Your task to perform on an android device: Open notification settings Image 0: 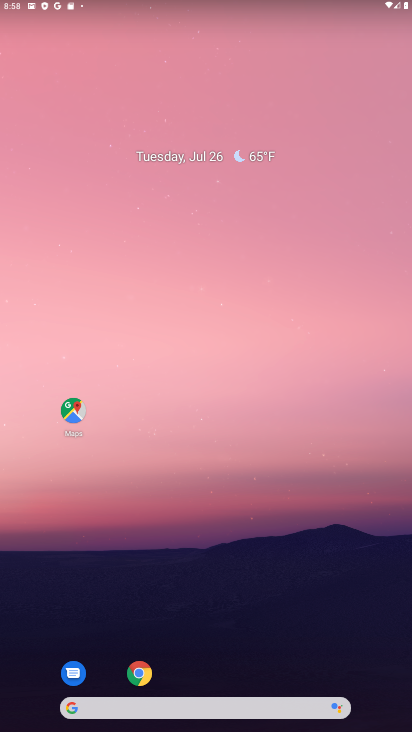
Step 0: drag from (364, 663) to (317, 95)
Your task to perform on an android device: Open notification settings Image 1: 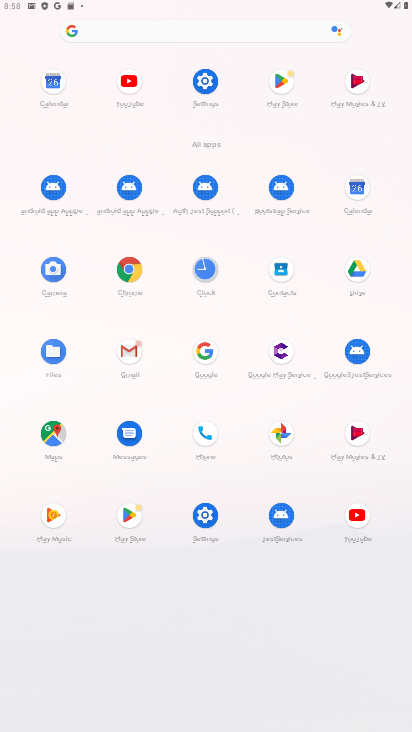
Step 1: click (203, 518)
Your task to perform on an android device: Open notification settings Image 2: 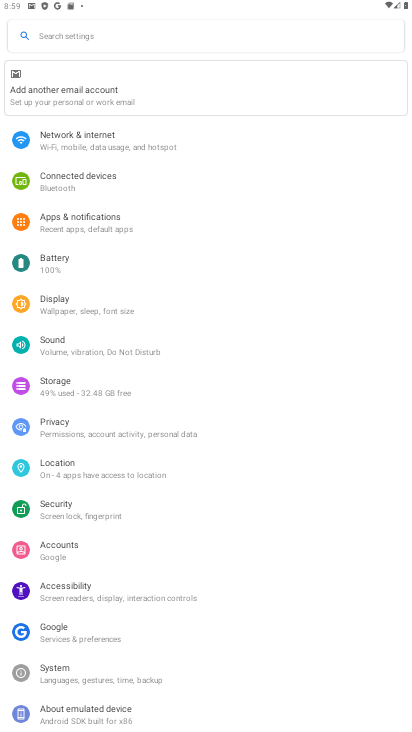
Step 2: click (92, 219)
Your task to perform on an android device: Open notification settings Image 3: 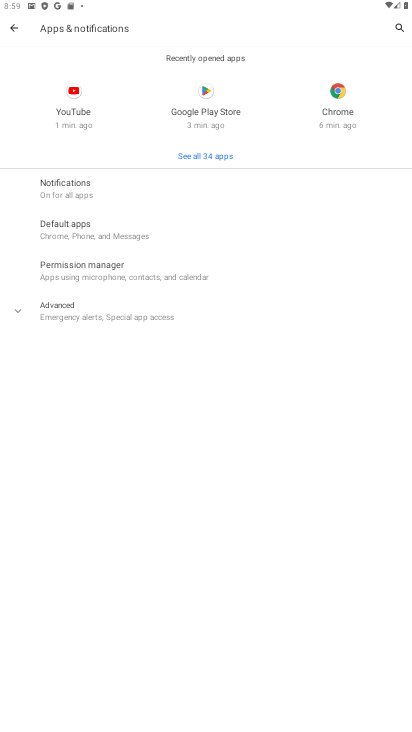
Step 3: click (56, 179)
Your task to perform on an android device: Open notification settings Image 4: 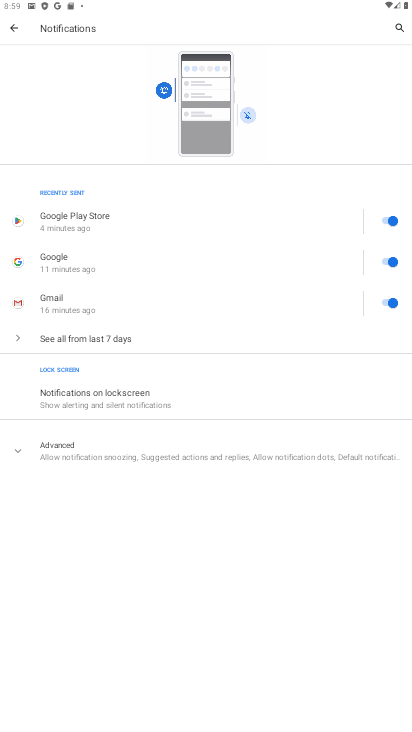
Step 4: click (15, 445)
Your task to perform on an android device: Open notification settings Image 5: 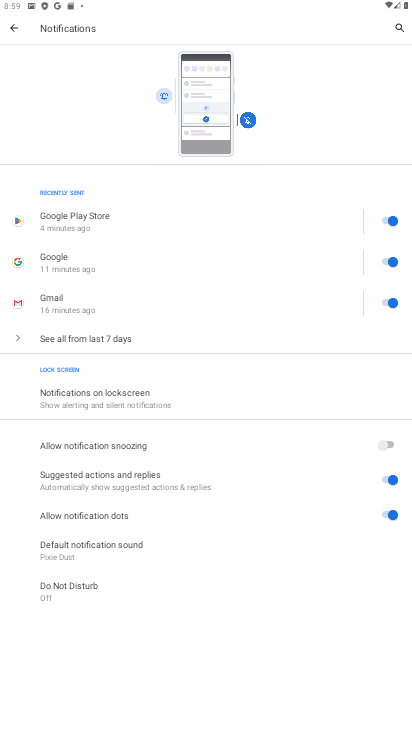
Step 5: task complete